Your task to perform on an android device: clear history in the chrome app Image 0: 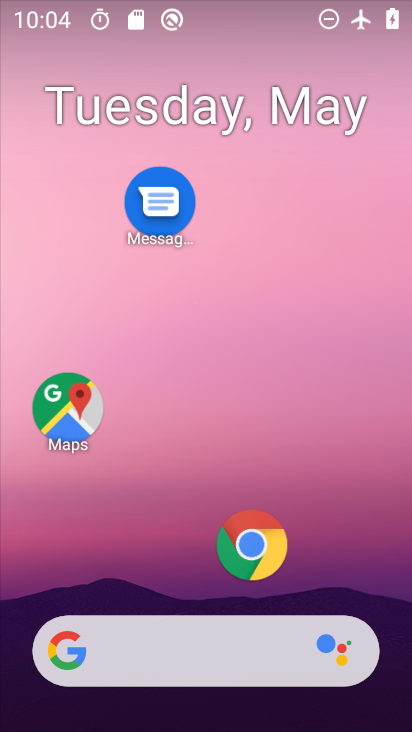
Step 0: click (263, 547)
Your task to perform on an android device: clear history in the chrome app Image 1: 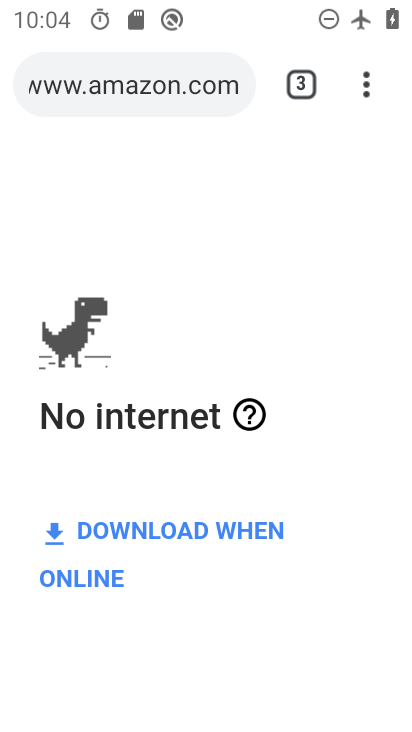
Step 1: task complete